Your task to perform on an android device: turn on airplane mode Image 0: 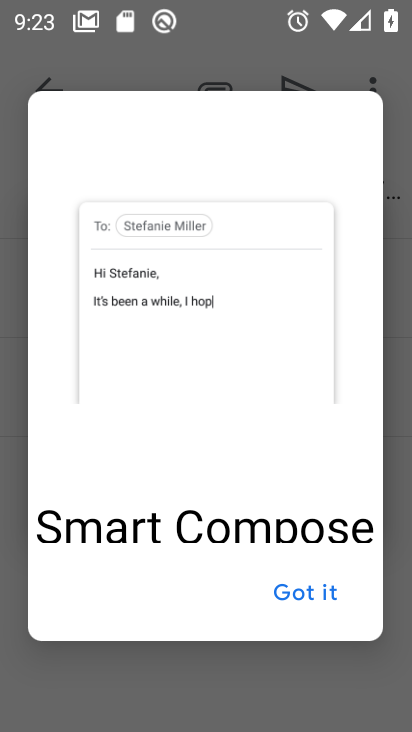
Step 0: press home button
Your task to perform on an android device: turn on airplane mode Image 1: 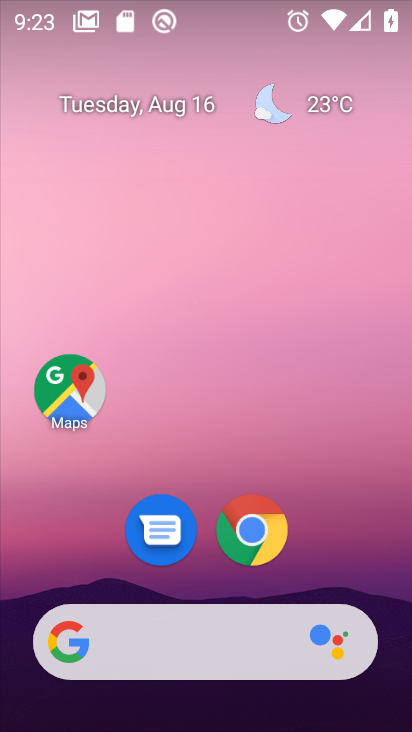
Step 1: drag from (356, 585) to (309, 185)
Your task to perform on an android device: turn on airplane mode Image 2: 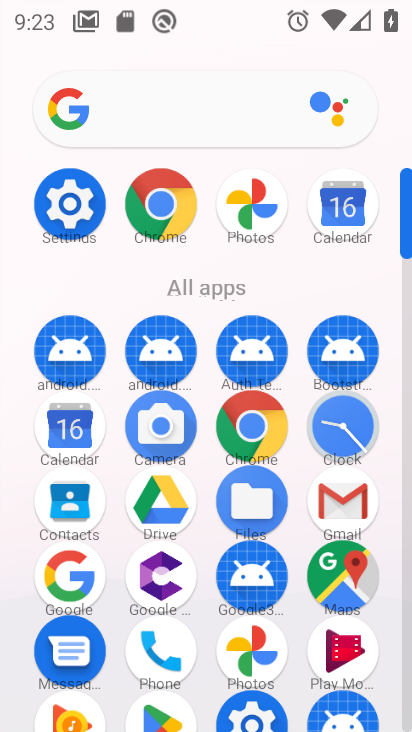
Step 2: click (73, 213)
Your task to perform on an android device: turn on airplane mode Image 3: 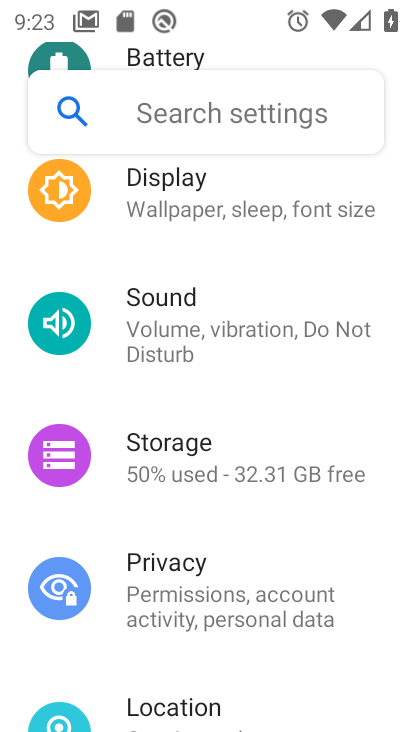
Step 3: drag from (291, 252) to (312, 698)
Your task to perform on an android device: turn on airplane mode Image 4: 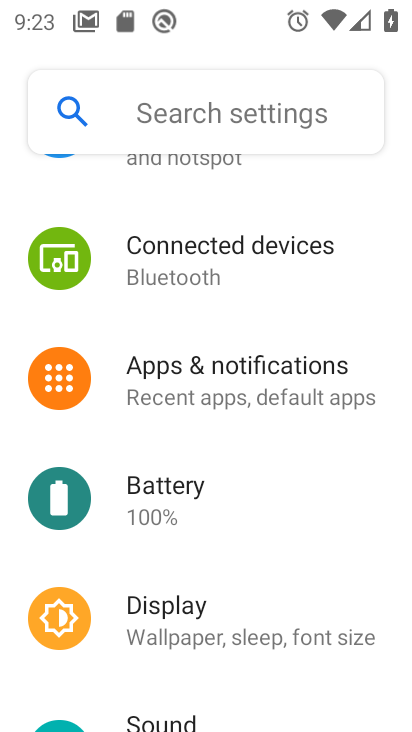
Step 4: drag from (291, 312) to (263, 593)
Your task to perform on an android device: turn on airplane mode Image 5: 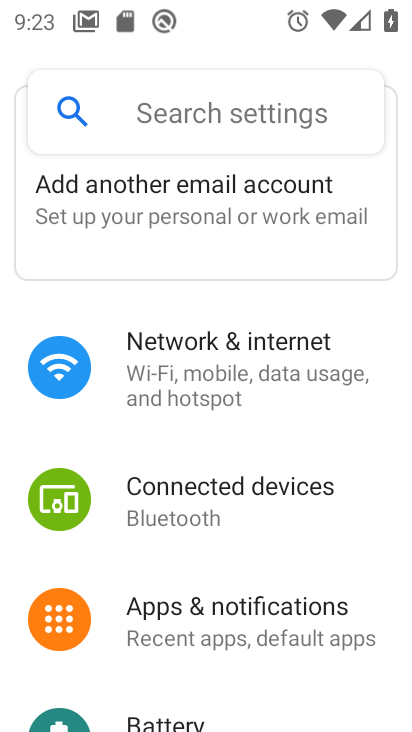
Step 5: click (212, 374)
Your task to perform on an android device: turn on airplane mode Image 6: 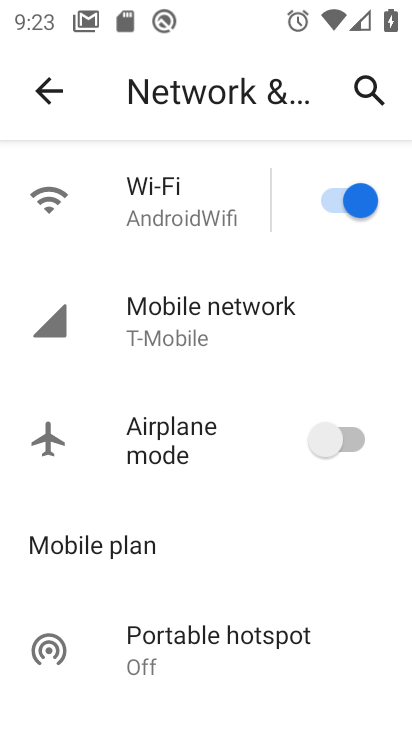
Step 6: click (333, 451)
Your task to perform on an android device: turn on airplane mode Image 7: 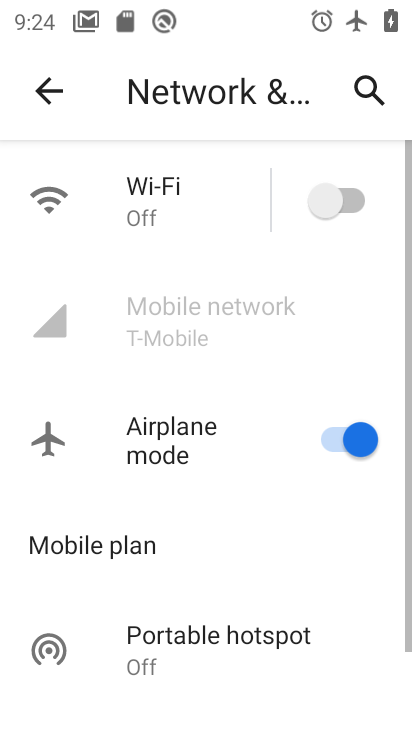
Step 7: task complete